Your task to perform on an android device: search for starred emails in the gmail app Image 0: 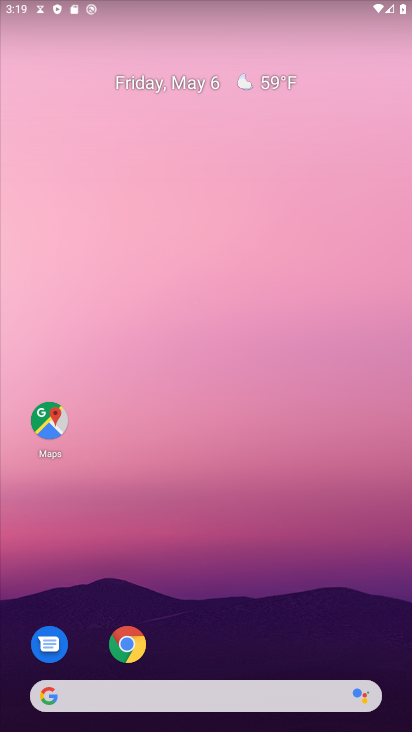
Step 0: drag from (238, 599) to (157, 35)
Your task to perform on an android device: search for starred emails in the gmail app Image 1: 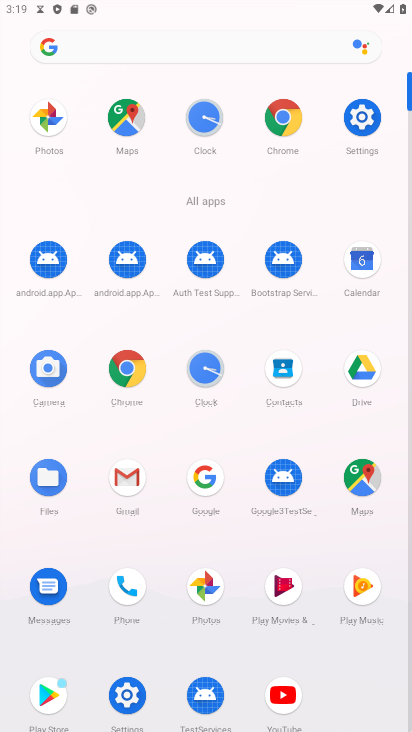
Step 1: click (129, 478)
Your task to perform on an android device: search for starred emails in the gmail app Image 2: 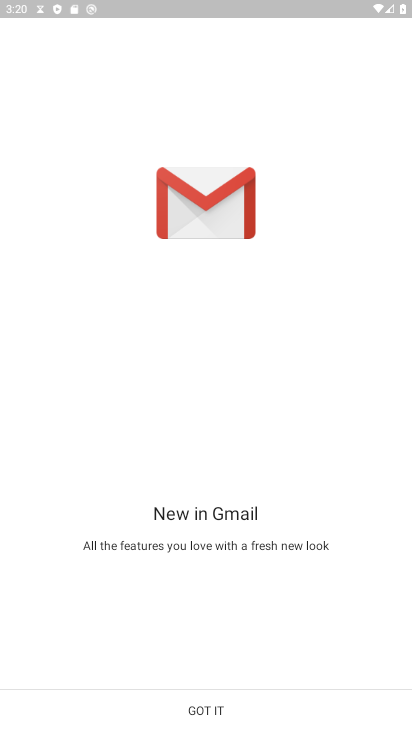
Step 2: click (211, 705)
Your task to perform on an android device: search for starred emails in the gmail app Image 3: 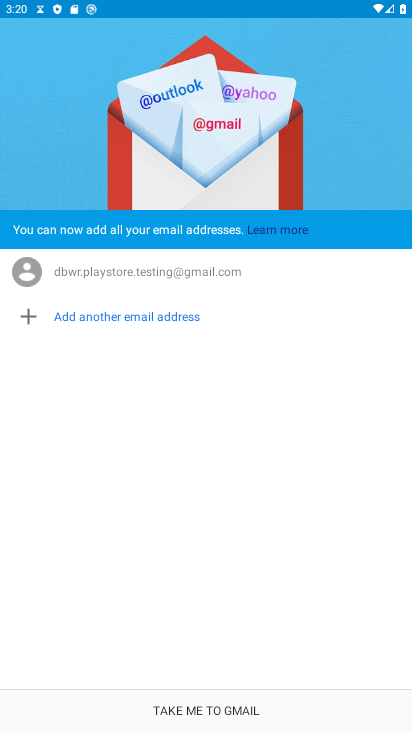
Step 3: click (211, 706)
Your task to perform on an android device: search for starred emails in the gmail app Image 4: 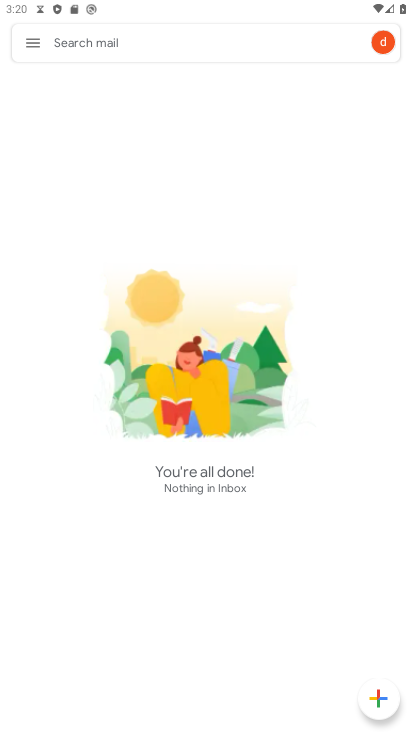
Step 4: click (31, 42)
Your task to perform on an android device: search for starred emails in the gmail app Image 5: 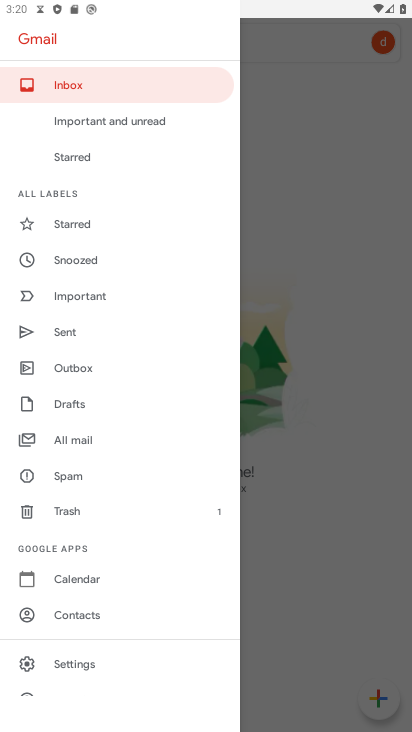
Step 5: click (66, 92)
Your task to perform on an android device: search for starred emails in the gmail app Image 6: 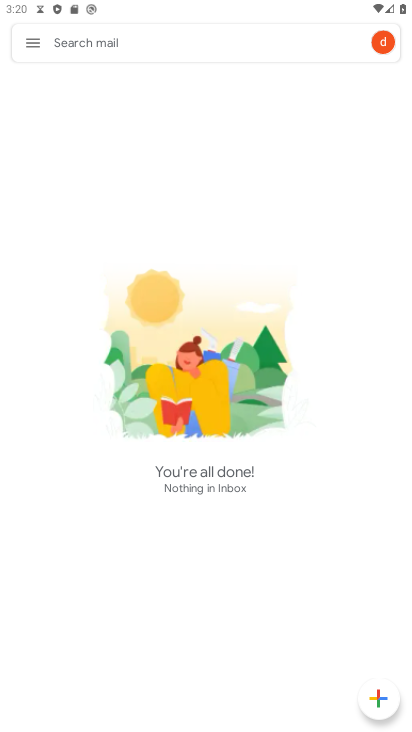
Step 6: click (40, 44)
Your task to perform on an android device: search for starred emails in the gmail app Image 7: 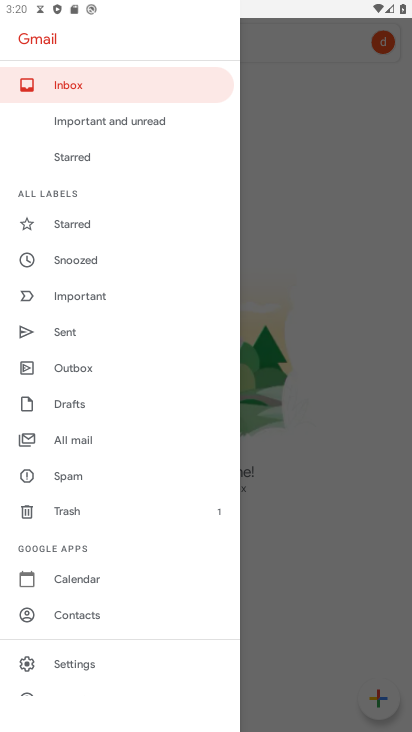
Step 7: click (77, 446)
Your task to perform on an android device: search for starred emails in the gmail app Image 8: 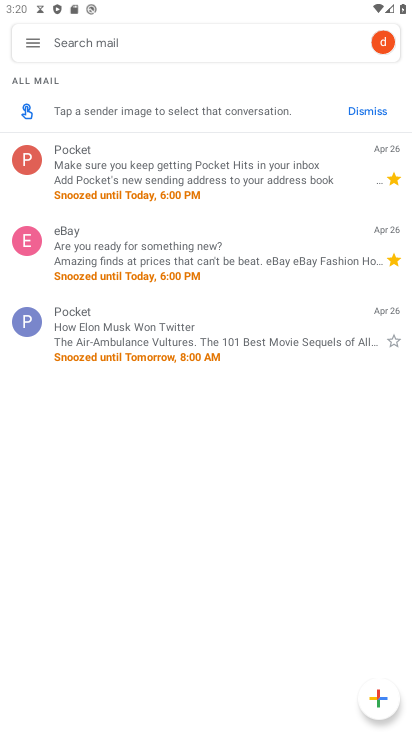
Step 8: click (158, 45)
Your task to perform on an android device: search for starred emails in the gmail app Image 9: 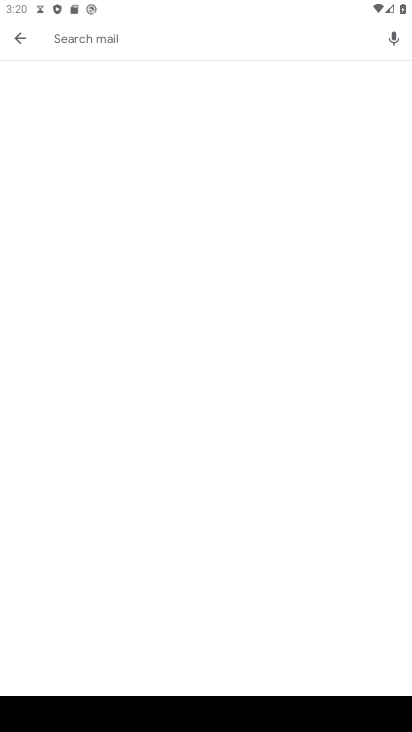
Step 9: type "starred"
Your task to perform on an android device: search for starred emails in the gmail app Image 10: 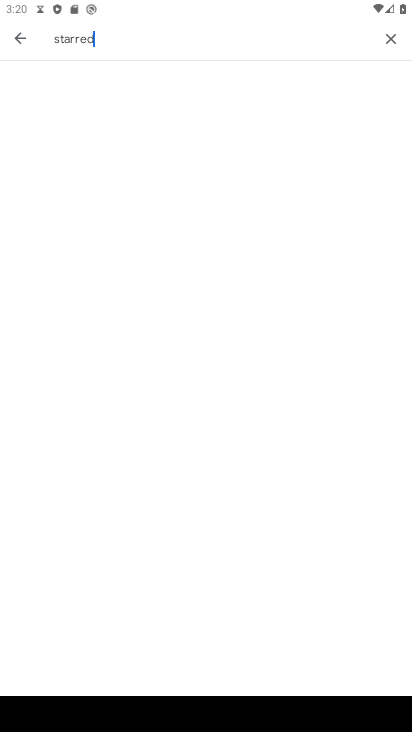
Step 10: type ""
Your task to perform on an android device: search for starred emails in the gmail app Image 11: 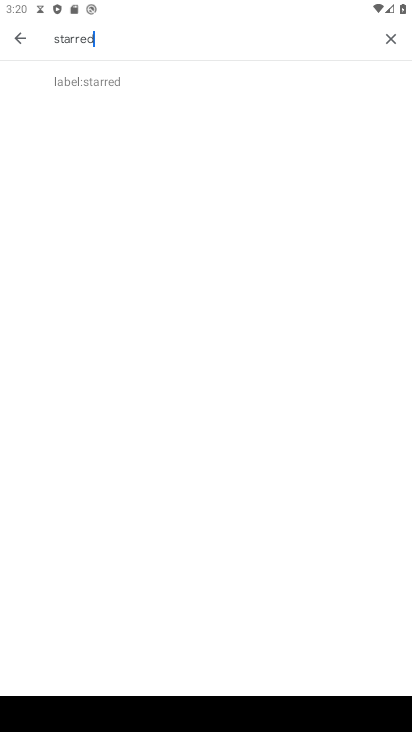
Step 11: click (65, 85)
Your task to perform on an android device: search for starred emails in the gmail app Image 12: 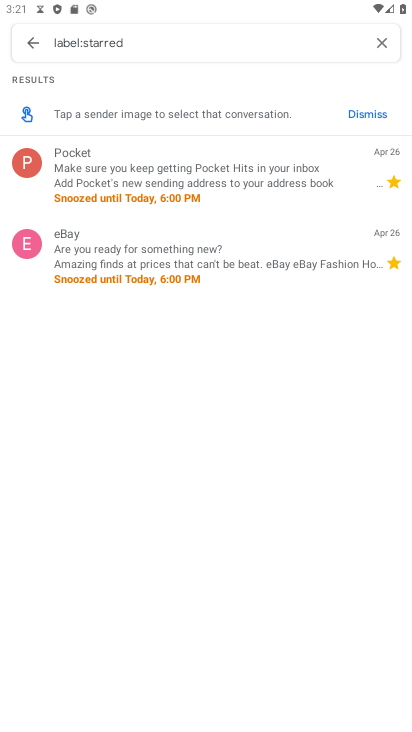
Step 12: task complete